Your task to perform on an android device: clear all cookies in the chrome app Image 0: 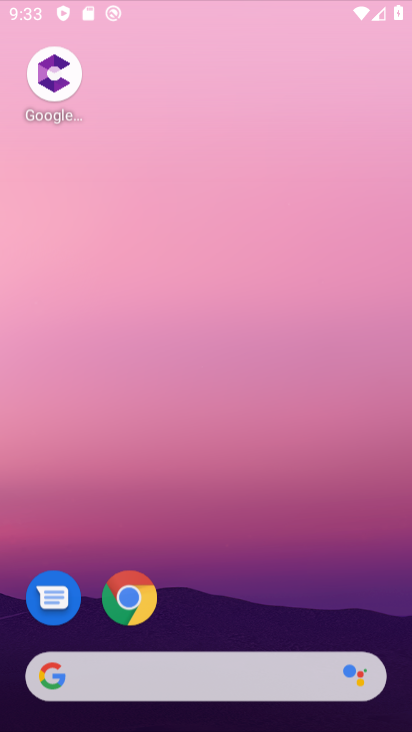
Step 0: click (219, 11)
Your task to perform on an android device: clear all cookies in the chrome app Image 1: 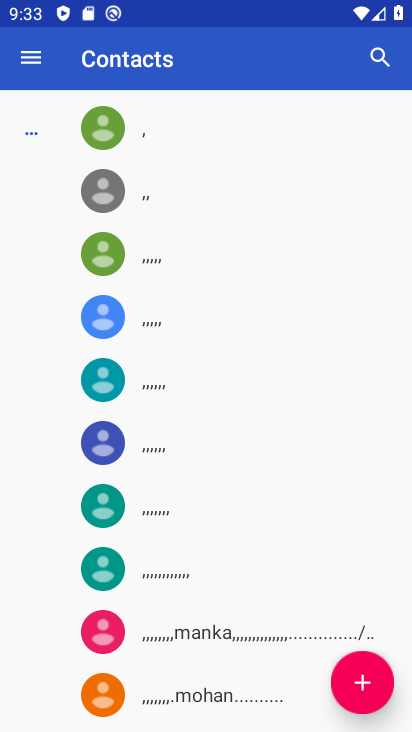
Step 1: press back button
Your task to perform on an android device: clear all cookies in the chrome app Image 2: 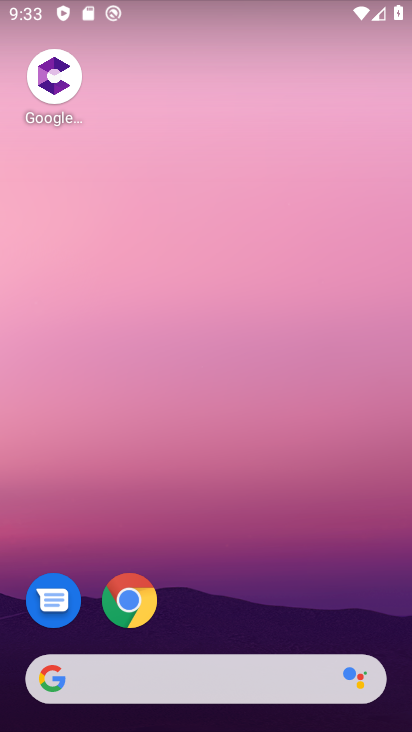
Step 2: click (128, 594)
Your task to perform on an android device: clear all cookies in the chrome app Image 3: 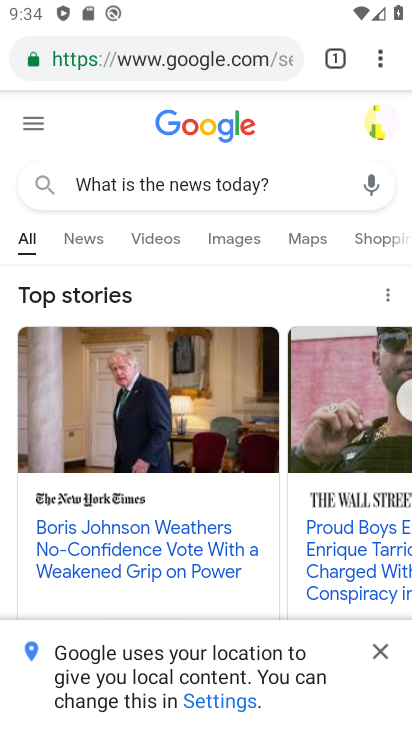
Step 3: drag from (337, 388) to (11, 403)
Your task to perform on an android device: clear all cookies in the chrome app Image 4: 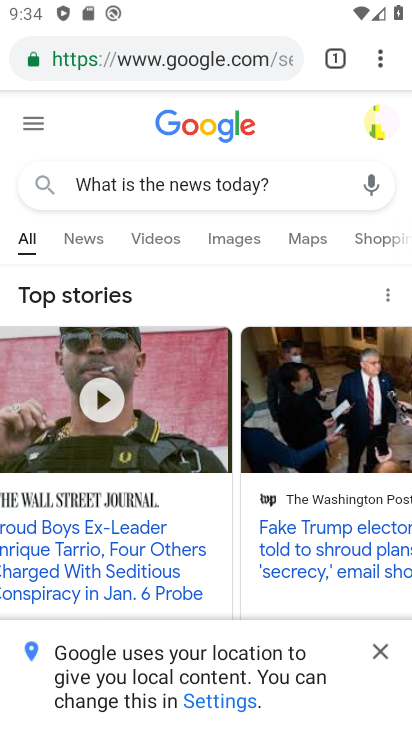
Step 4: drag from (336, 368) to (29, 398)
Your task to perform on an android device: clear all cookies in the chrome app Image 5: 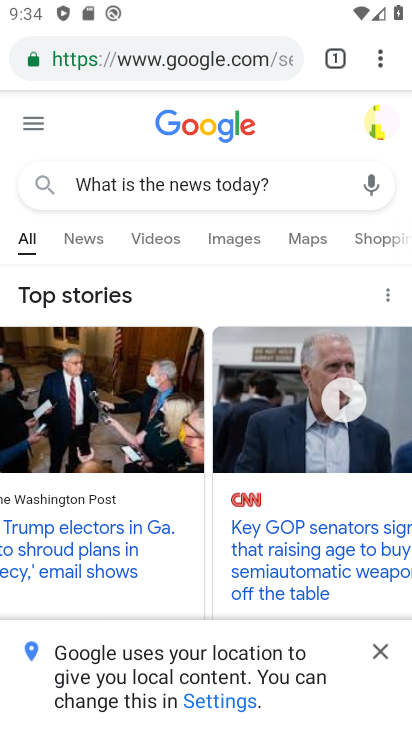
Step 5: drag from (326, 358) to (7, 383)
Your task to perform on an android device: clear all cookies in the chrome app Image 6: 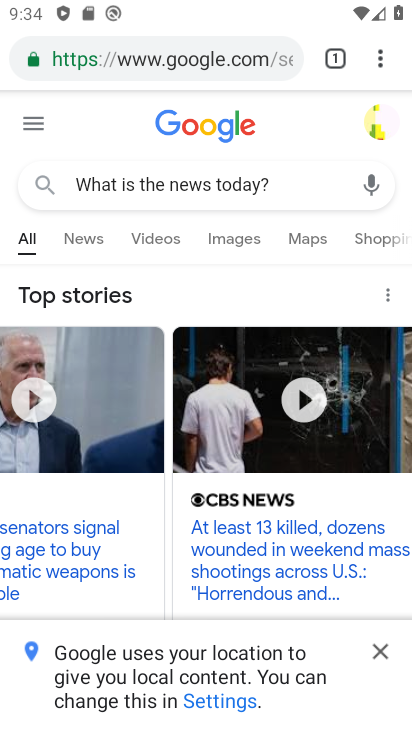
Step 6: drag from (378, 62) to (207, 621)
Your task to perform on an android device: clear all cookies in the chrome app Image 7: 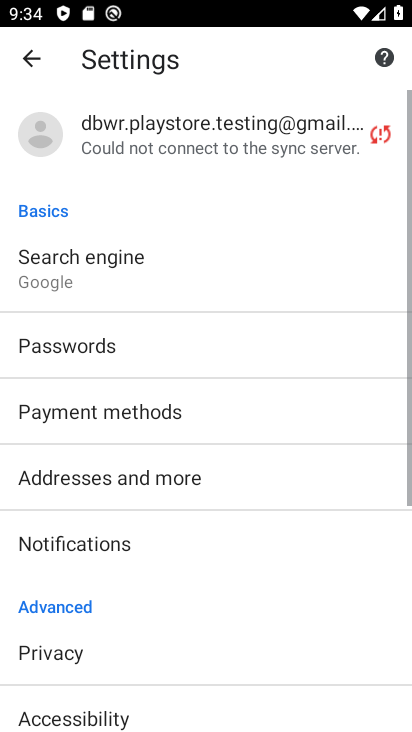
Step 7: drag from (159, 644) to (203, 294)
Your task to perform on an android device: clear all cookies in the chrome app Image 8: 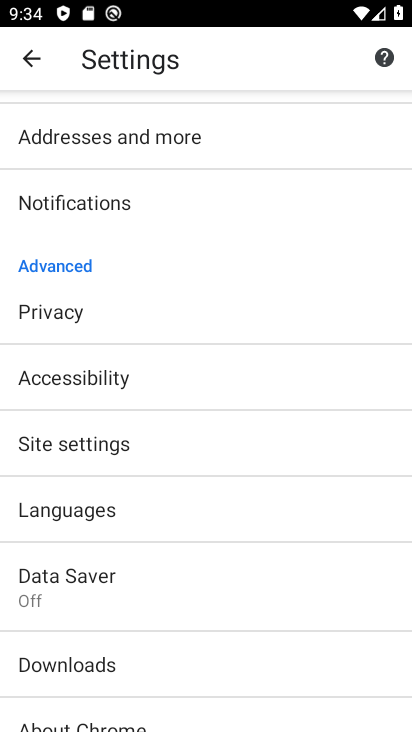
Step 8: click (96, 314)
Your task to perform on an android device: clear all cookies in the chrome app Image 9: 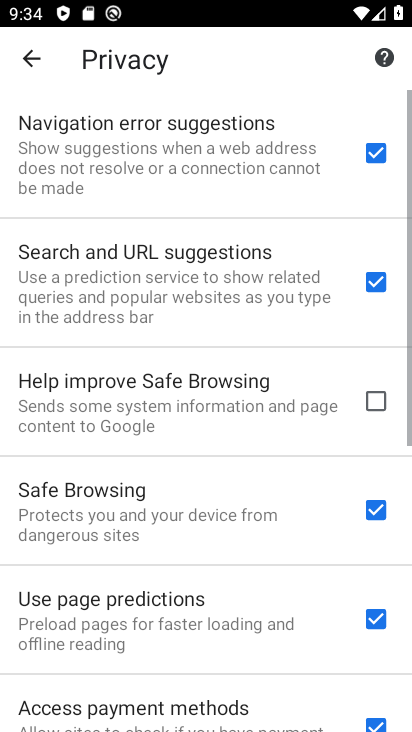
Step 9: drag from (207, 626) to (260, 178)
Your task to perform on an android device: clear all cookies in the chrome app Image 10: 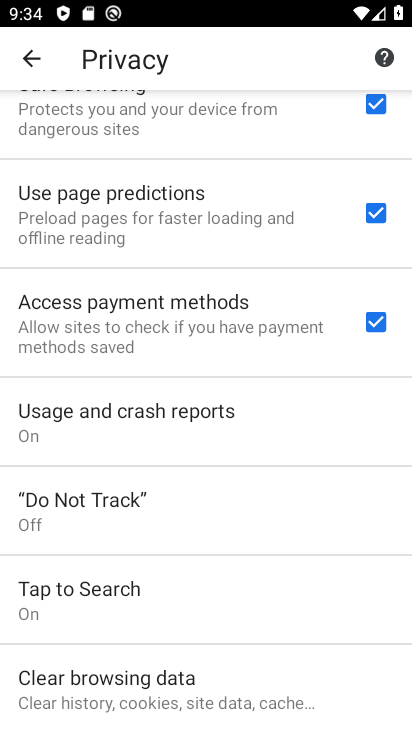
Step 10: drag from (202, 602) to (225, 240)
Your task to perform on an android device: clear all cookies in the chrome app Image 11: 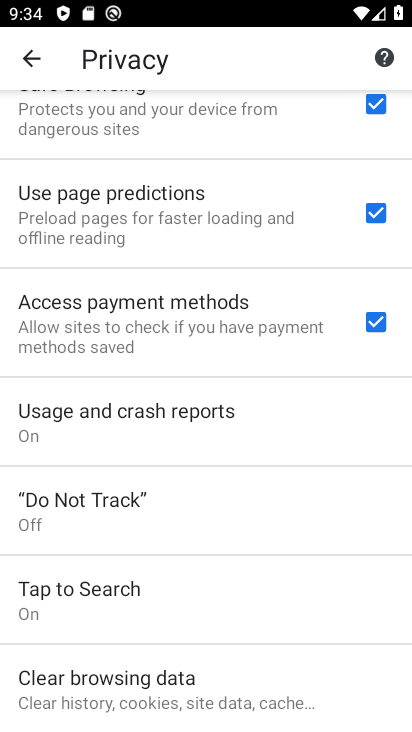
Step 11: click (173, 697)
Your task to perform on an android device: clear all cookies in the chrome app Image 12: 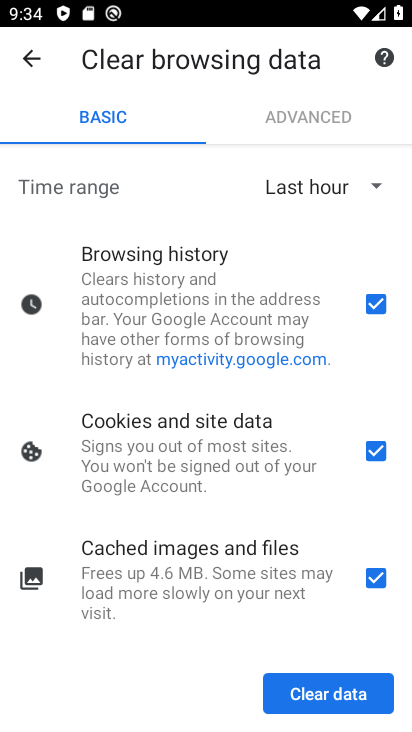
Step 12: click (378, 304)
Your task to perform on an android device: clear all cookies in the chrome app Image 13: 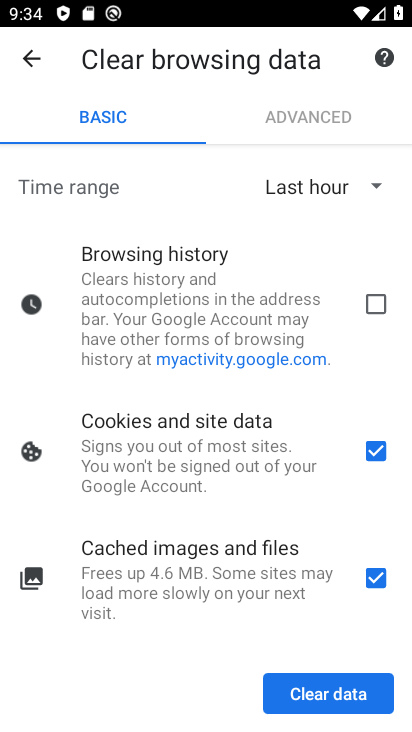
Step 13: click (373, 579)
Your task to perform on an android device: clear all cookies in the chrome app Image 14: 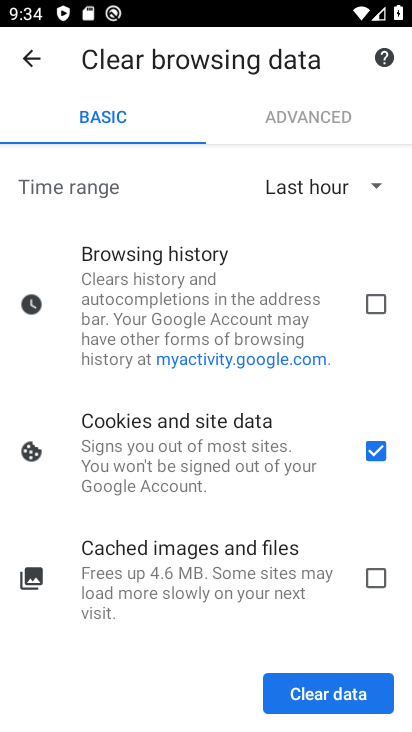
Step 14: click (315, 701)
Your task to perform on an android device: clear all cookies in the chrome app Image 15: 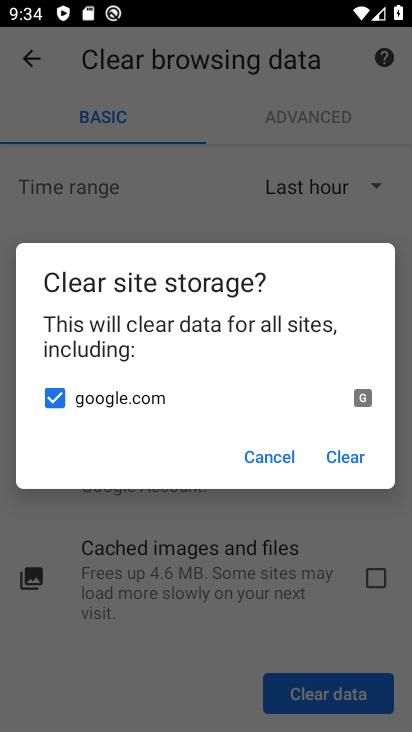
Step 15: click (348, 457)
Your task to perform on an android device: clear all cookies in the chrome app Image 16: 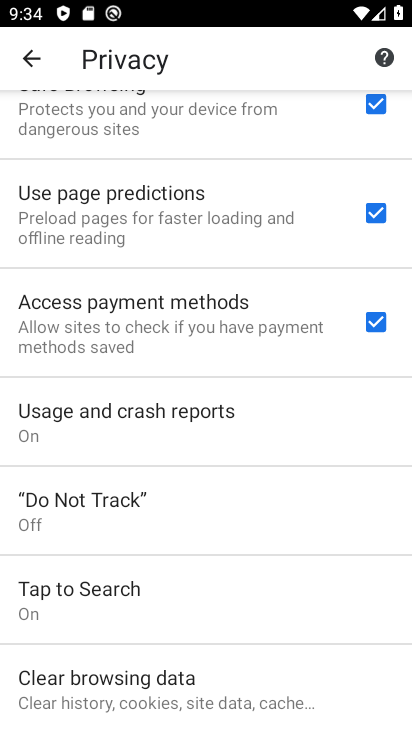
Step 16: task complete